Your task to perform on an android device: Open calendar and show me the second week of next month Image 0: 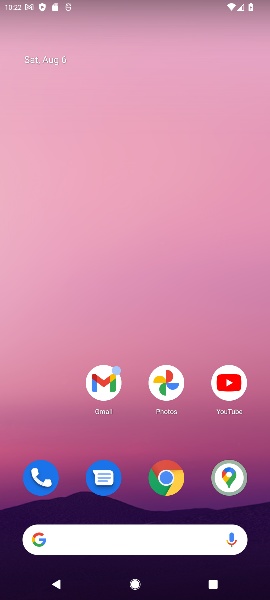
Step 0: drag from (130, 372) to (143, 165)
Your task to perform on an android device: Open calendar and show me the second week of next month Image 1: 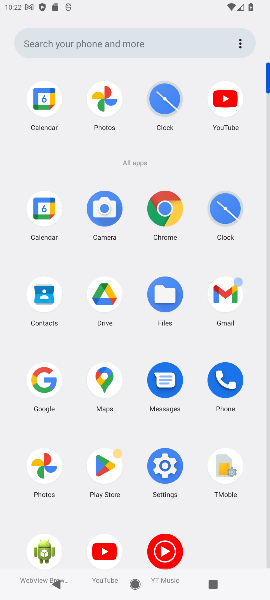
Step 1: click (35, 210)
Your task to perform on an android device: Open calendar and show me the second week of next month Image 2: 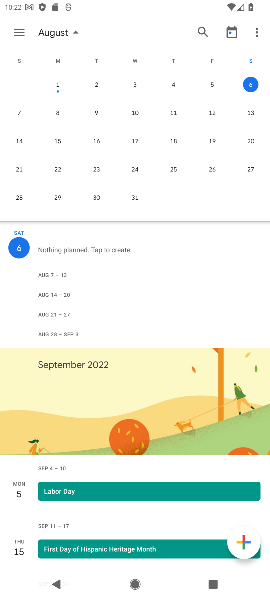
Step 2: drag from (128, 149) to (28, 142)
Your task to perform on an android device: Open calendar and show me the second week of next month Image 3: 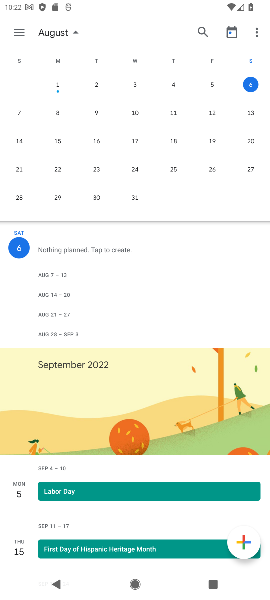
Step 3: drag from (225, 142) to (1, 136)
Your task to perform on an android device: Open calendar and show me the second week of next month Image 4: 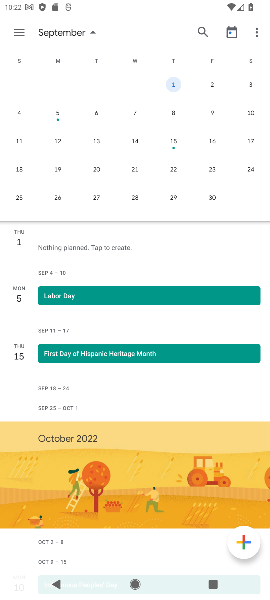
Step 4: click (54, 140)
Your task to perform on an android device: Open calendar and show me the second week of next month Image 5: 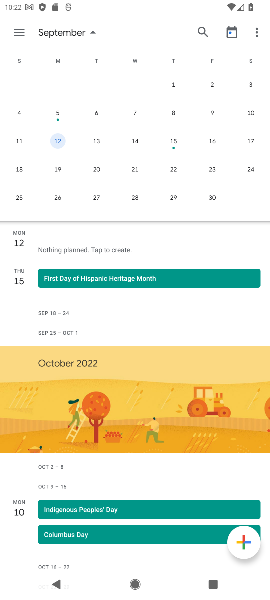
Step 5: click (24, 30)
Your task to perform on an android device: Open calendar and show me the second week of next month Image 6: 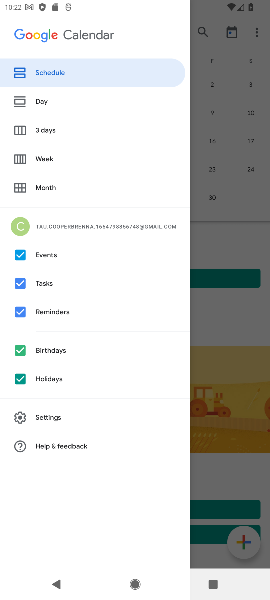
Step 6: click (41, 159)
Your task to perform on an android device: Open calendar and show me the second week of next month Image 7: 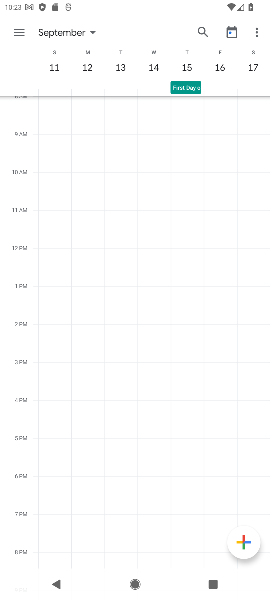
Step 7: task complete